Your task to perform on an android device: clear all cookies in the chrome app Image 0: 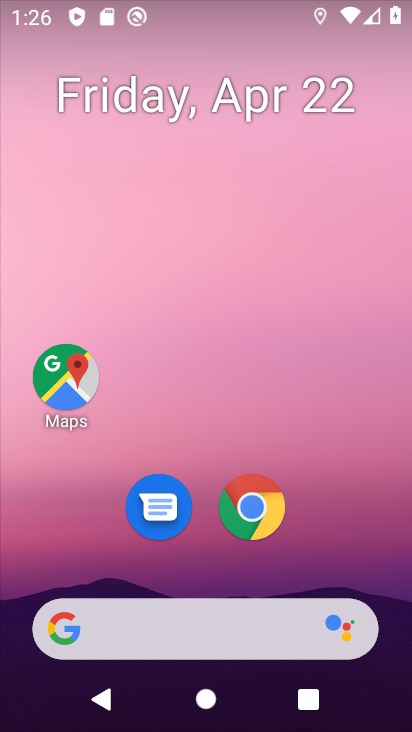
Step 0: drag from (151, 625) to (209, 128)
Your task to perform on an android device: clear all cookies in the chrome app Image 1: 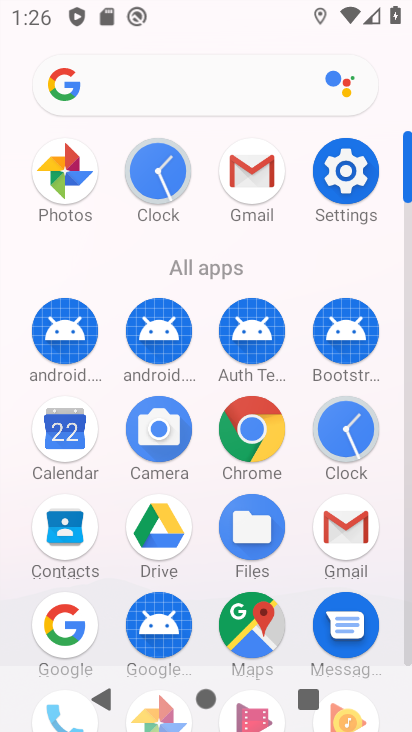
Step 1: click (255, 432)
Your task to perform on an android device: clear all cookies in the chrome app Image 2: 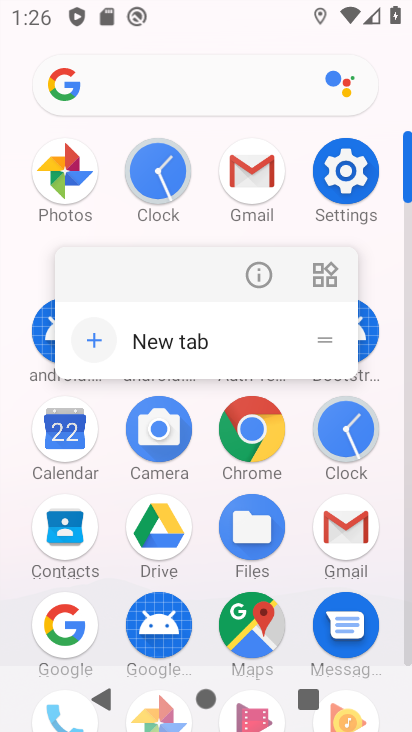
Step 2: click (249, 438)
Your task to perform on an android device: clear all cookies in the chrome app Image 3: 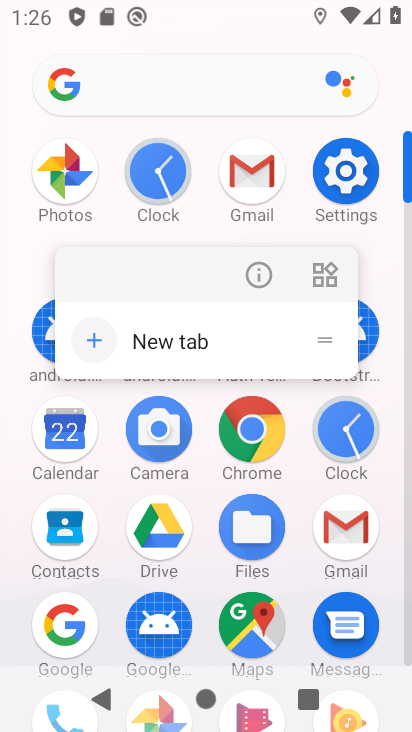
Step 3: click (253, 447)
Your task to perform on an android device: clear all cookies in the chrome app Image 4: 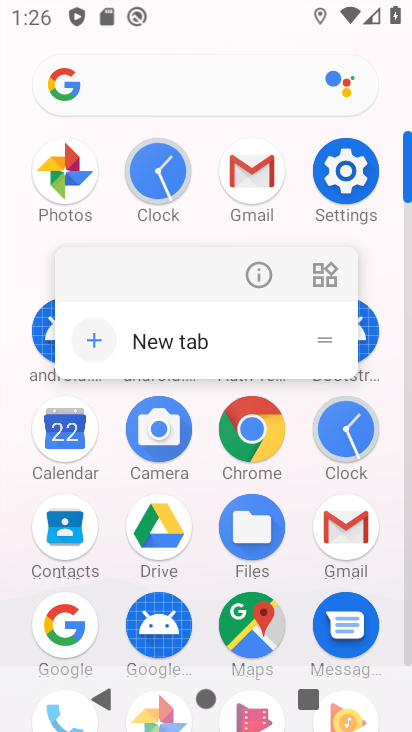
Step 4: click (254, 436)
Your task to perform on an android device: clear all cookies in the chrome app Image 5: 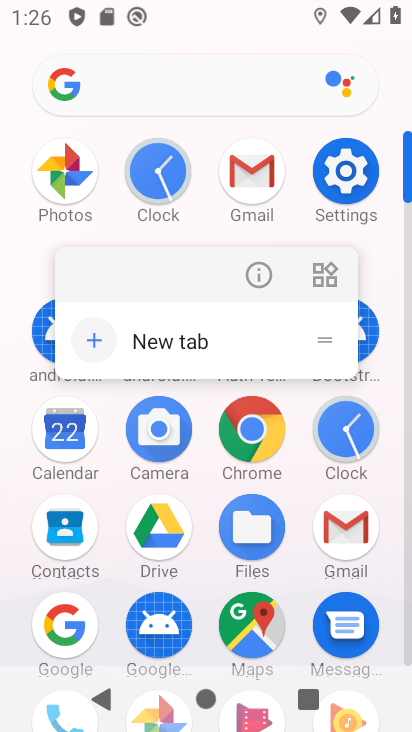
Step 5: click (262, 434)
Your task to perform on an android device: clear all cookies in the chrome app Image 6: 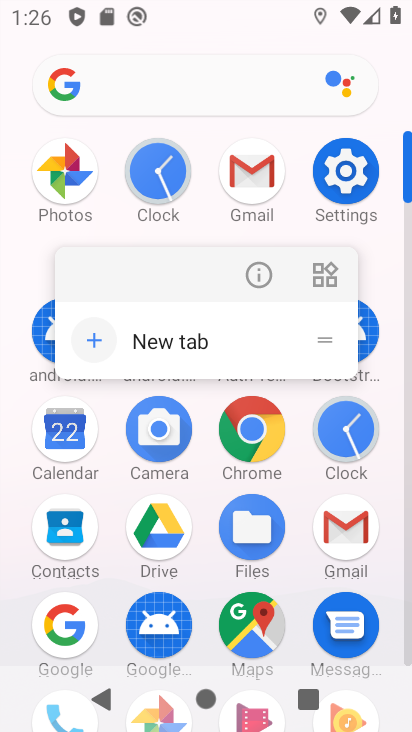
Step 6: click (250, 437)
Your task to perform on an android device: clear all cookies in the chrome app Image 7: 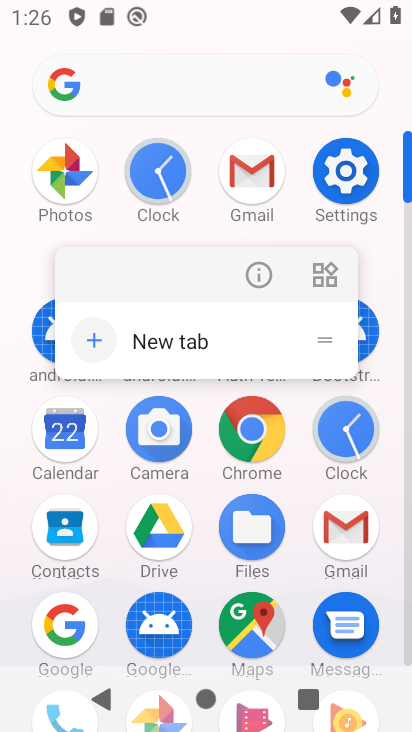
Step 7: click (250, 444)
Your task to perform on an android device: clear all cookies in the chrome app Image 8: 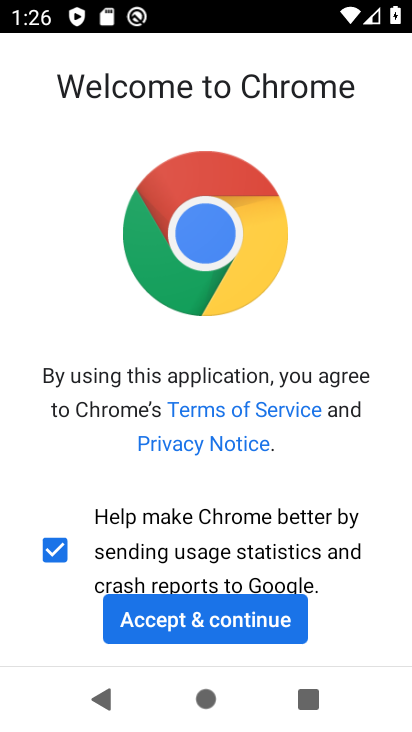
Step 8: click (193, 613)
Your task to perform on an android device: clear all cookies in the chrome app Image 9: 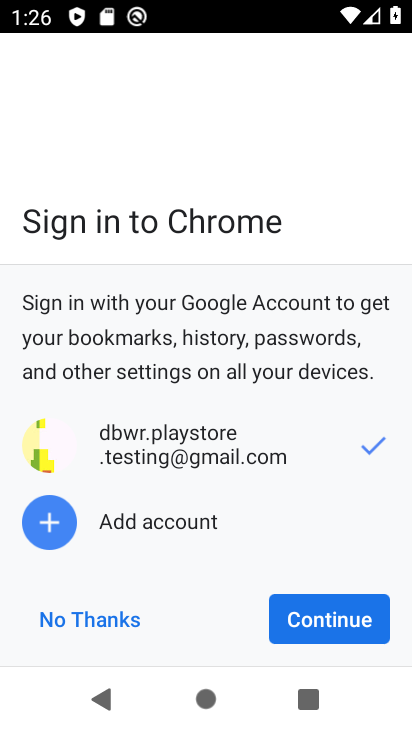
Step 9: click (351, 623)
Your task to perform on an android device: clear all cookies in the chrome app Image 10: 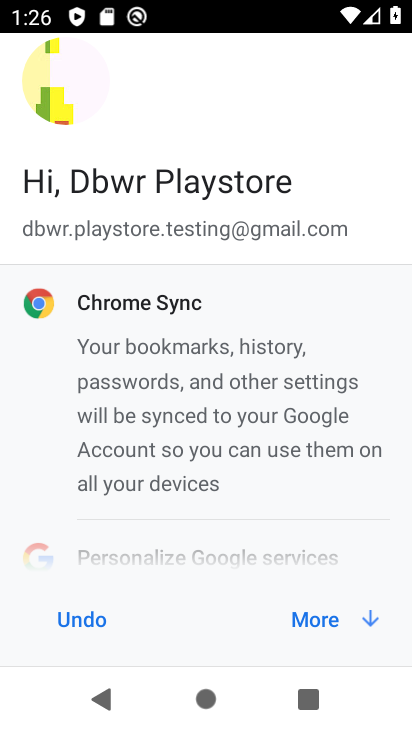
Step 10: click (334, 621)
Your task to perform on an android device: clear all cookies in the chrome app Image 11: 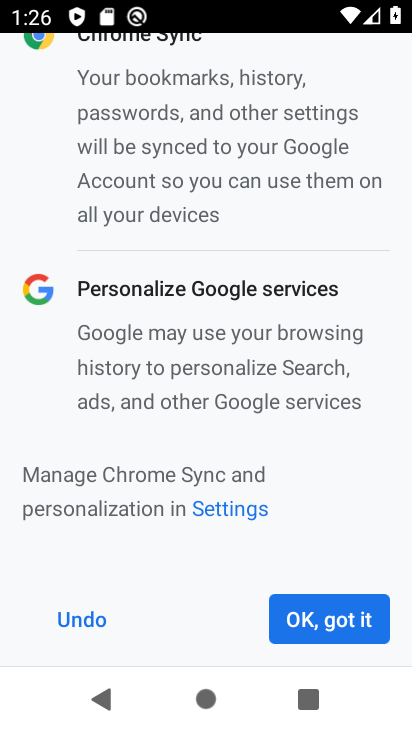
Step 11: click (344, 613)
Your task to perform on an android device: clear all cookies in the chrome app Image 12: 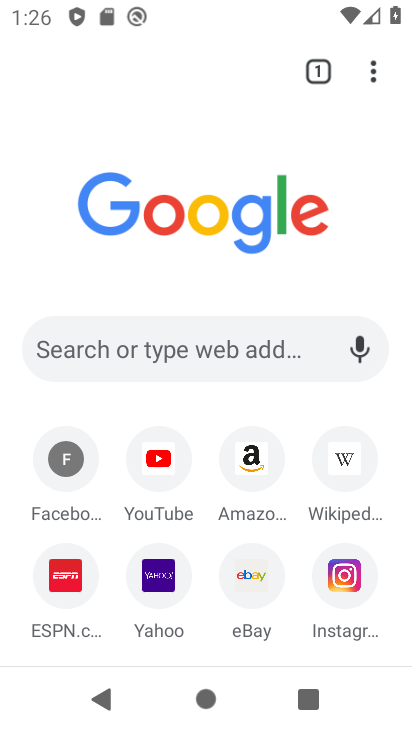
Step 12: click (368, 83)
Your task to perform on an android device: clear all cookies in the chrome app Image 13: 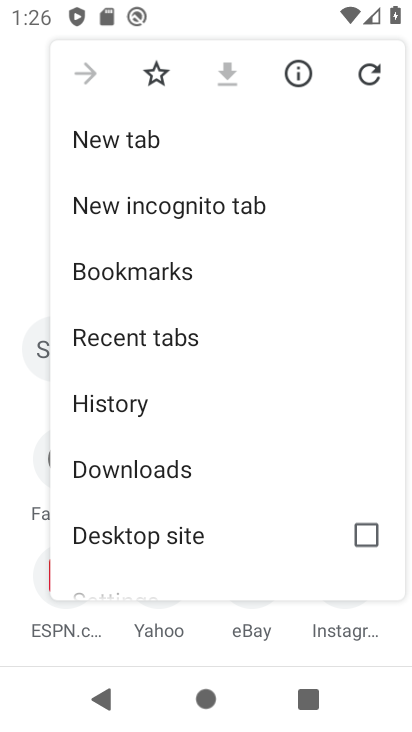
Step 13: drag from (174, 548) to (231, 144)
Your task to perform on an android device: clear all cookies in the chrome app Image 14: 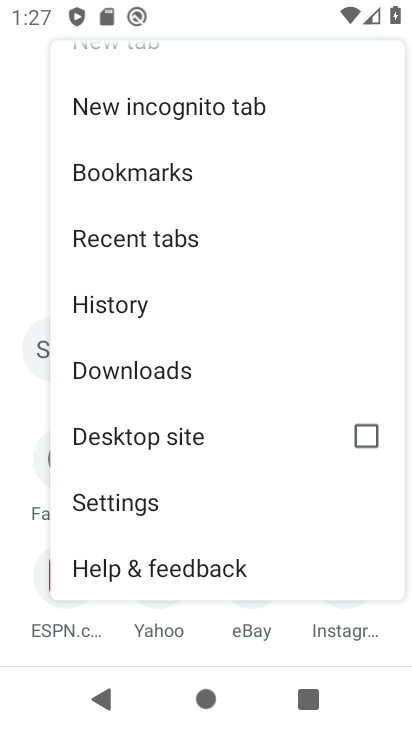
Step 14: click (121, 503)
Your task to perform on an android device: clear all cookies in the chrome app Image 15: 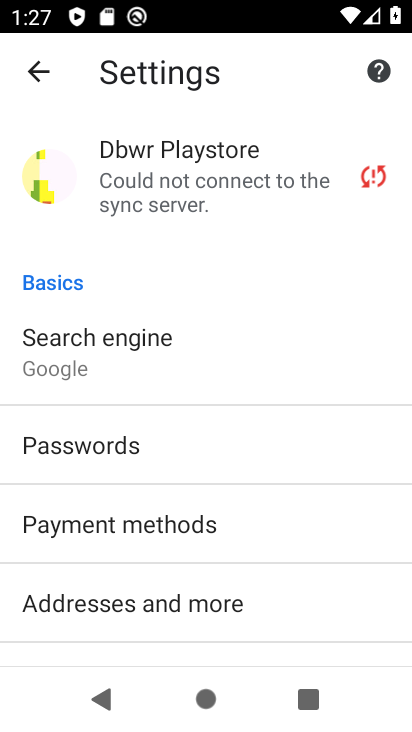
Step 15: drag from (164, 575) to (244, 121)
Your task to perform on an android device: clear all cookies in the chrome app Image 16: 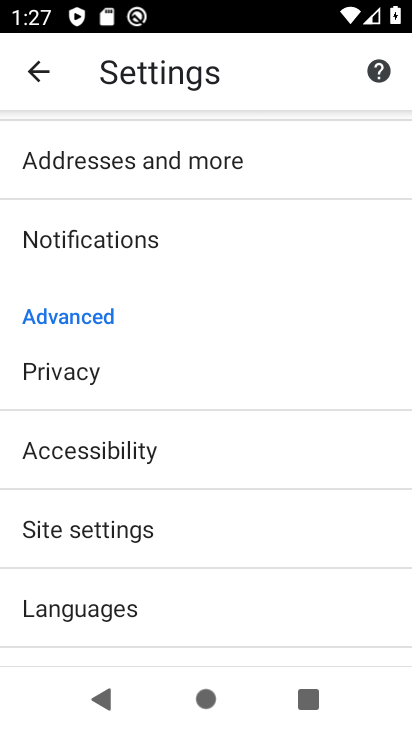
Step 16: click (67, 370)
Your task to perform on an android device: clear all cookies in the chrome app Image 17: 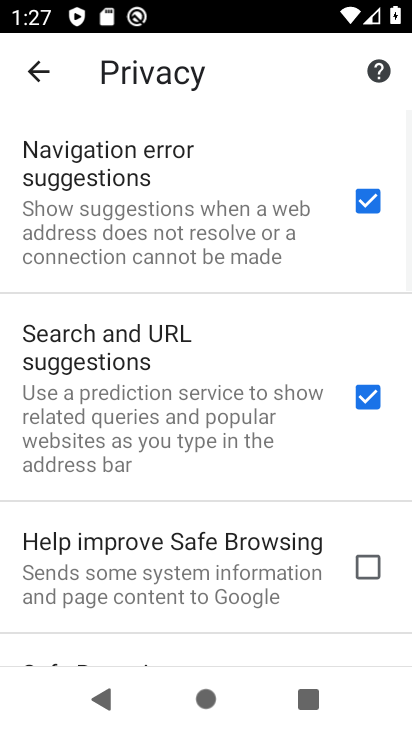
Step 17: drag from (78, 650) to (244, 106)
Your task to perform on an android device: clear all cookies in the chrome app Image 18: 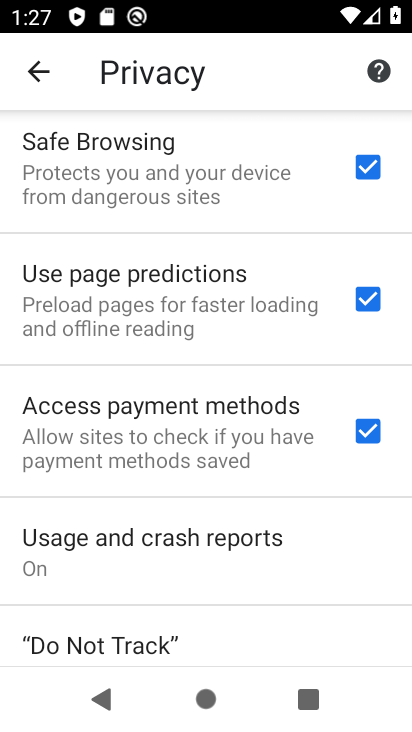
Step 18: drag from (98, 593) to (295, 115)
Your task to perform on an android device: clear all cookies in the chrome app Image 19: 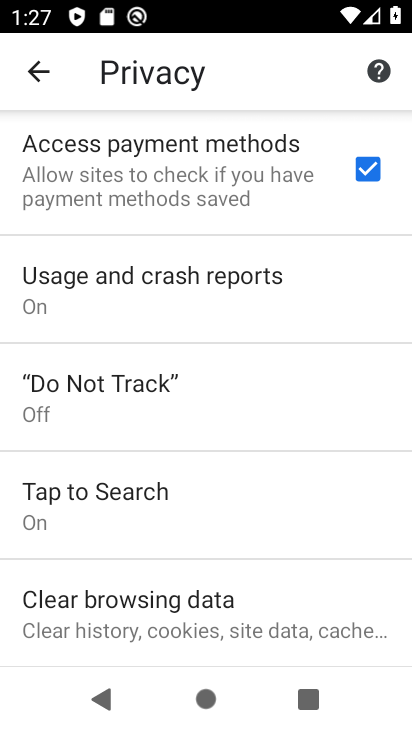
Step 19: click (111, 610)
Your task to perform on an android device: clear all cookies in the chrome app Image 20: 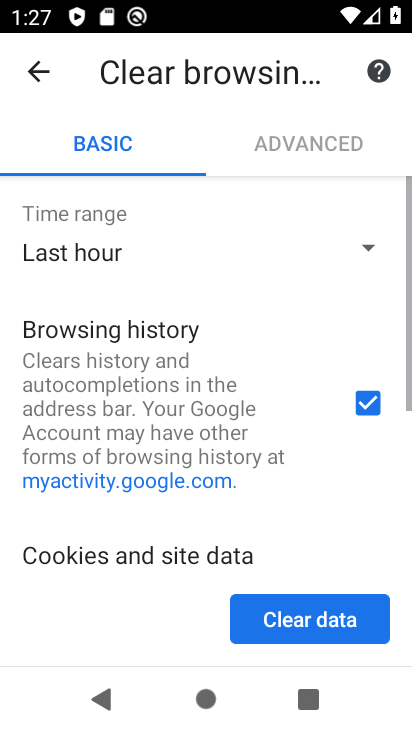
Step 20: click (362, 398)
Your task to perform on an android device: clear all cookies in the chrome app Image 21: 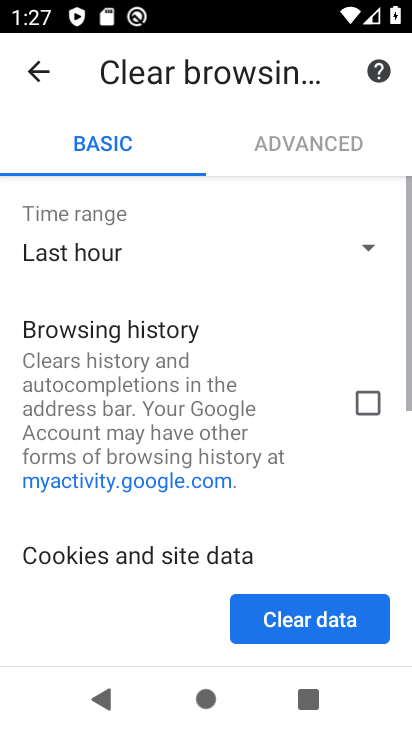
Step 21: drag from (190, 517) to (287, 219)
Your task to perform on an android device: clear all cookies in the chrome app Image 22: 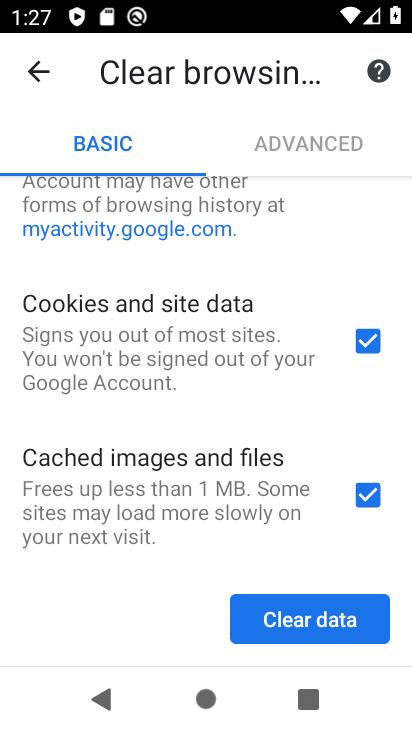
Step 22: click (370, 488)
Your task to perform on an android device: clear all cookies in the chrome app Image 23: 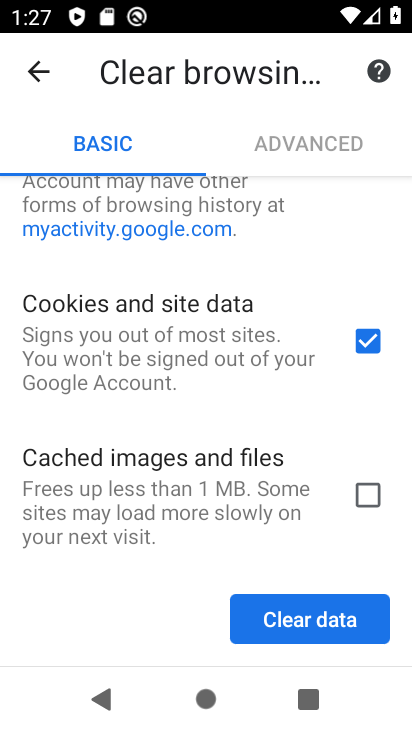
Step 23: click (295, 619)
Your task to perform on an android device: clear all cookies in the chrome app Image 24: 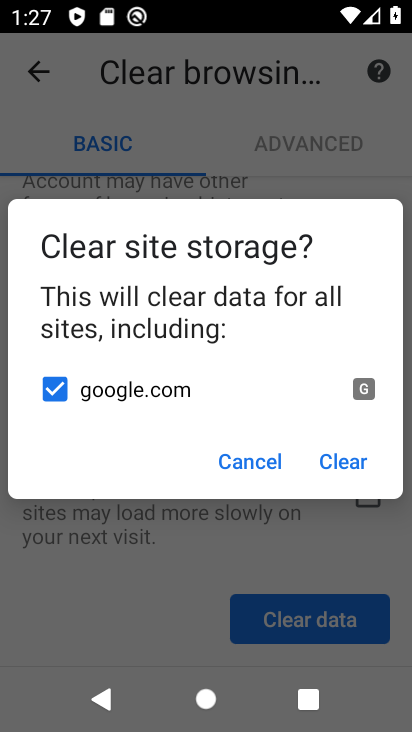
Step 24: click (344, 466)
Your task to perform on an android device: clear all cookies in the chrome app Image 25: 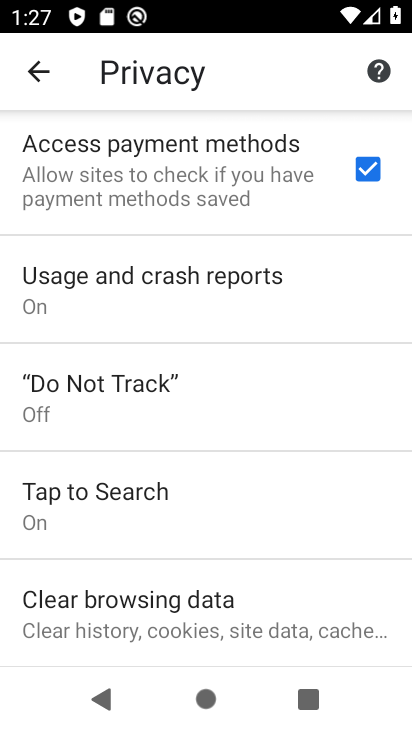
Step 25: task complete